Your task to perform on an android device: Go to Android settings Image 0: 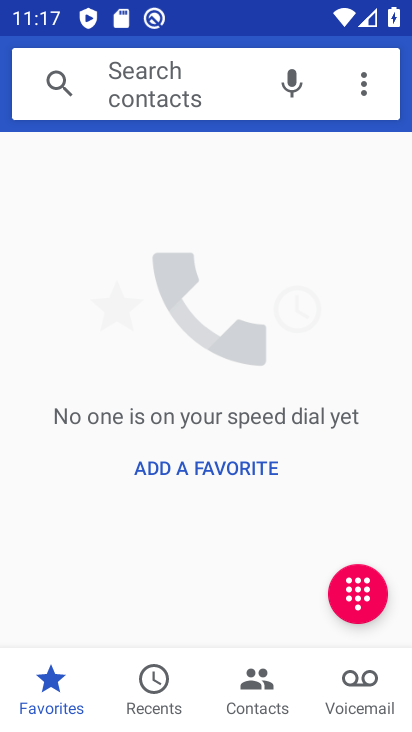
Step 0: press home button
Your task to perform on an android device: Go to Android settings Image 1: 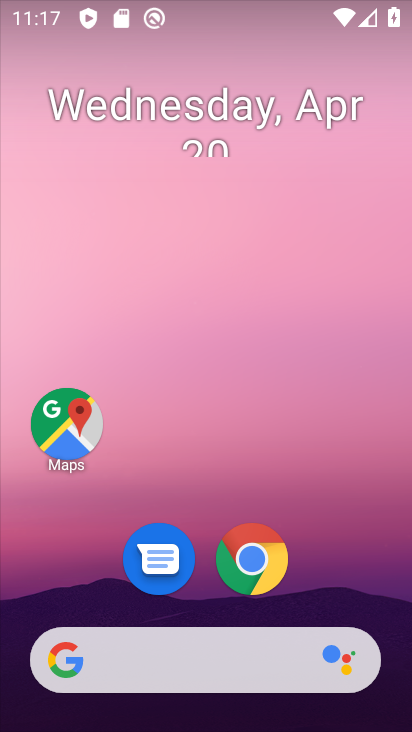
Step 1: drag from (335, 493) to (272, 33)
Your task to perform on an android device: Go to Android settings Image 2: 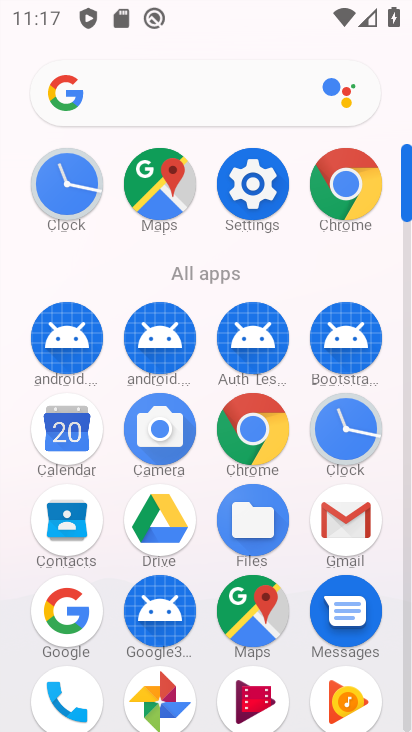
Step 2: click (236, 196)
Your task to perform on an android device: Go to Android settings Image 3: 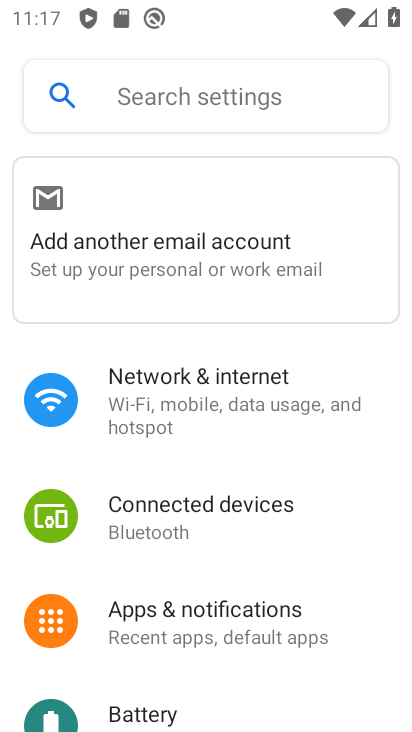
Step 3: drag from (223, 659) to (228, 78)
Your task to perform on an android device: Go to Android settings Image 4: 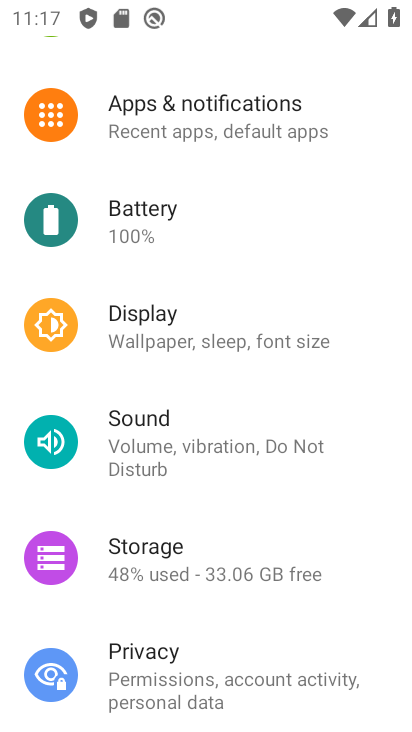
Step 4: drag from (229, 647) to (230, 102)
Your task to perform on an android device: Go to Android settings Image 5: 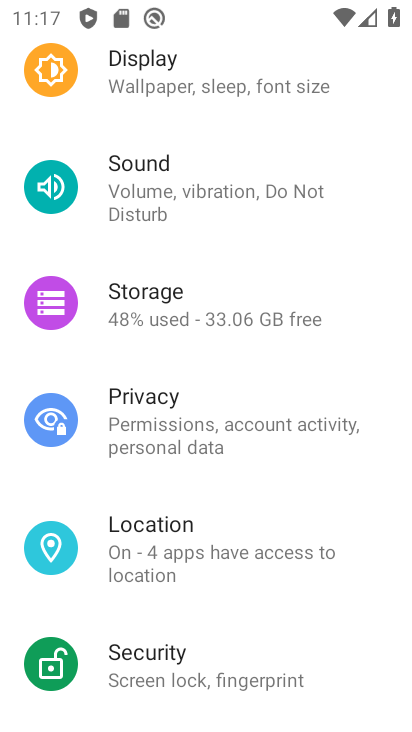
Step 5: drag from (239, 621) to (223, 137)
Your task to perform on an android device: Go to Android settings Image 6: 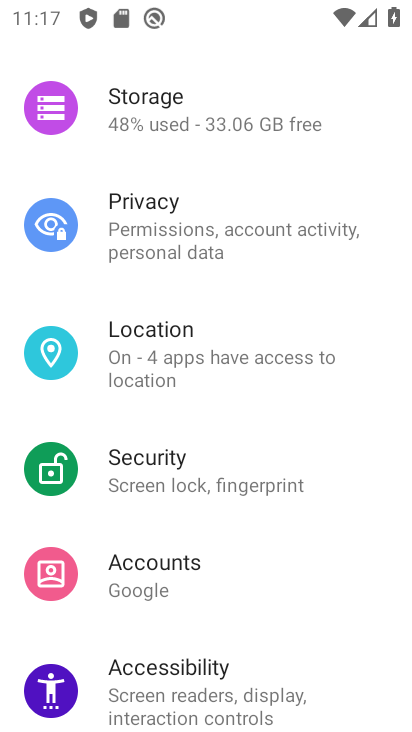
Step 6: drag from (249, 527) to (239, 87)
Your task to perform on an android device: Go to Android settings Image 7: 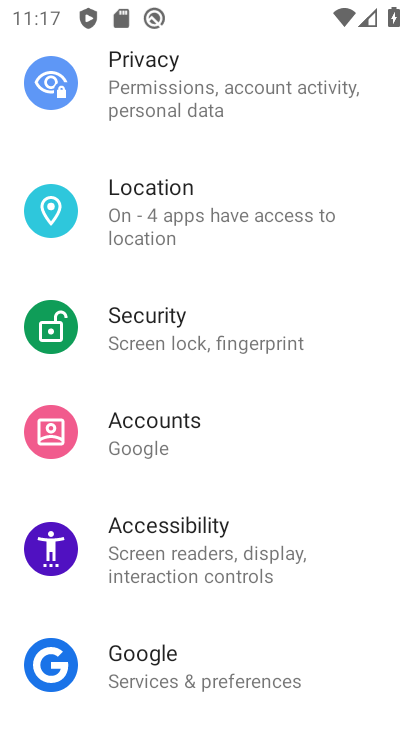
Step 7: drag from (251, 477) to (212, 102)
Your task to perform on an android device: Go to Android settings Image 8: 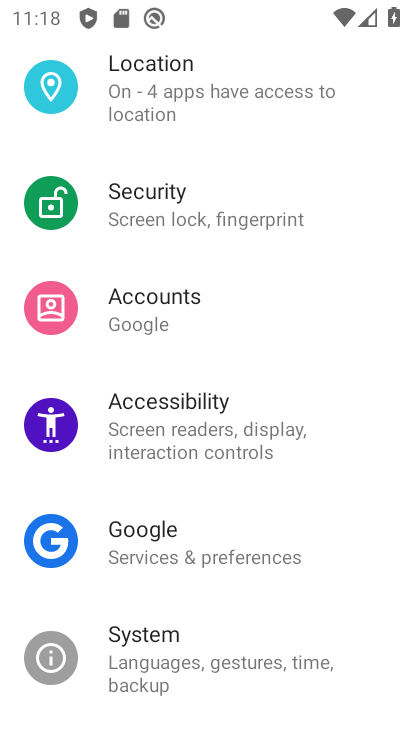
Step 8: click (196, 652)
Your task to perform on an android device: Go to Android settings Image 9: 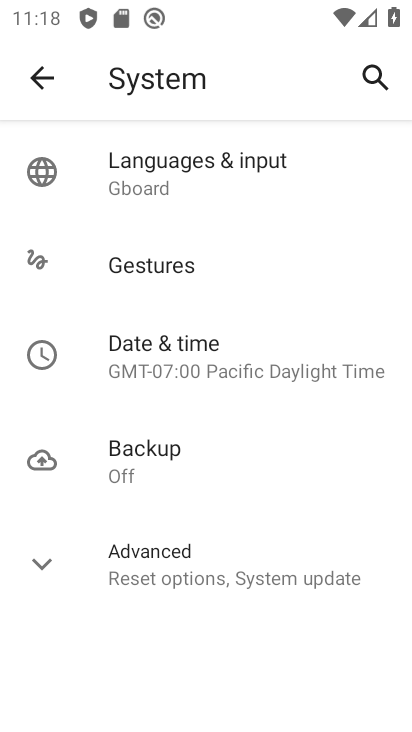
Step 9: click (50, 80)
Your task to perform on an android device: Go to Android settings Image 10: 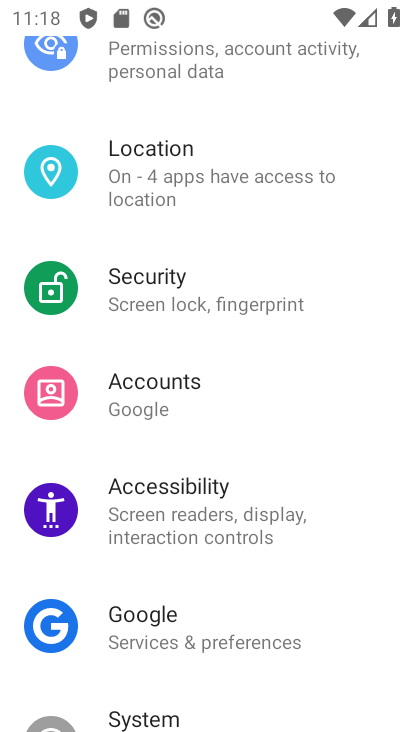
Step 10: drag from (199, 658) to (215, 124)
Your task to perform on an android device: Go to Android settings Image 11: 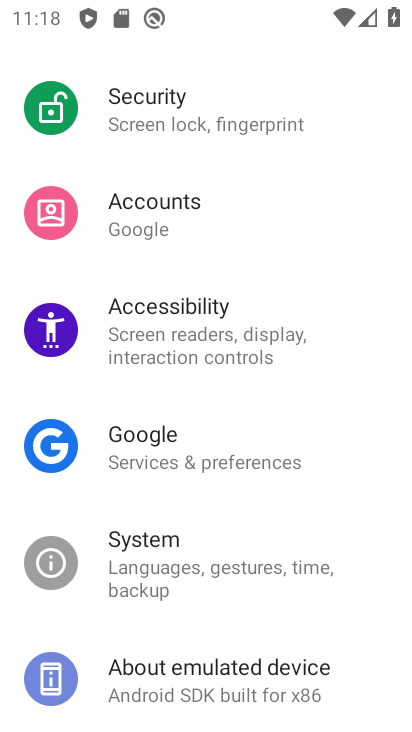
Step 11: click (208, 684)
Your task to perform on an android device: Go to Android settings Image 12: 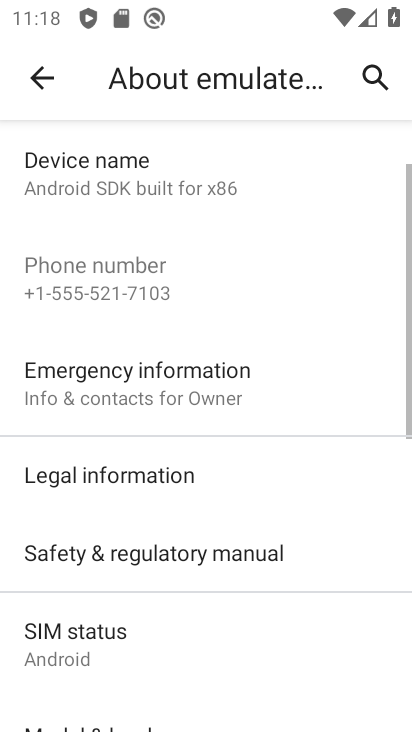
Step 12: drag from (190, 626) to (186, 104)
Your task to perform on an android device: Go to Android settings Image 13: 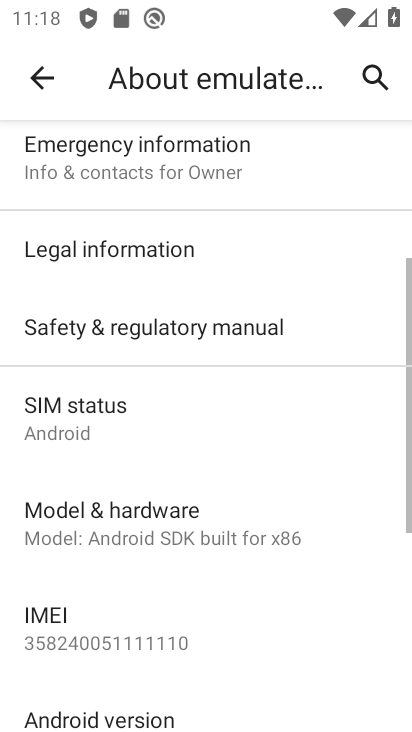
Step 13: drag from (204, 606) to (225, 214)
Your task to perform on an android device: Go to Android settings Image 14: 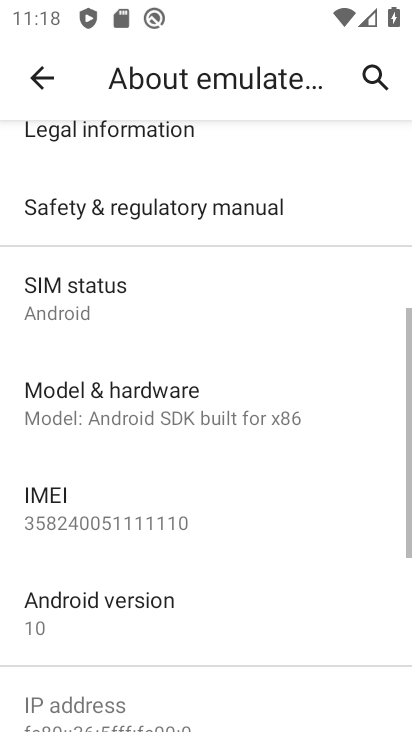
Step 14: click (168, 598)
Your task to perform on an android device: Go to Android settings Image 15: 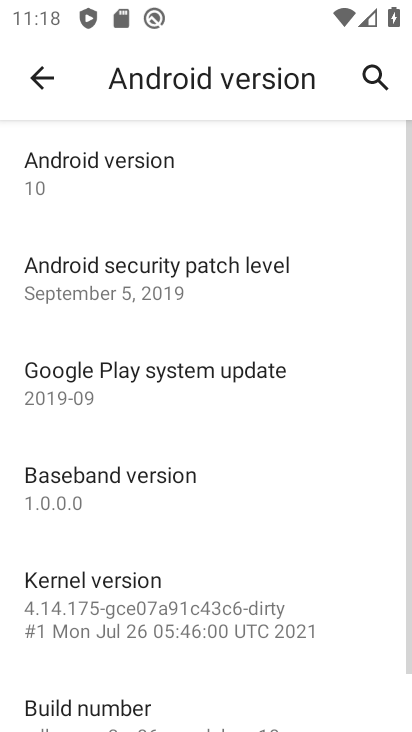
Step 15: task complete